Your task to perform on an android device: install app "Duolingo: language lessons" Image 0: 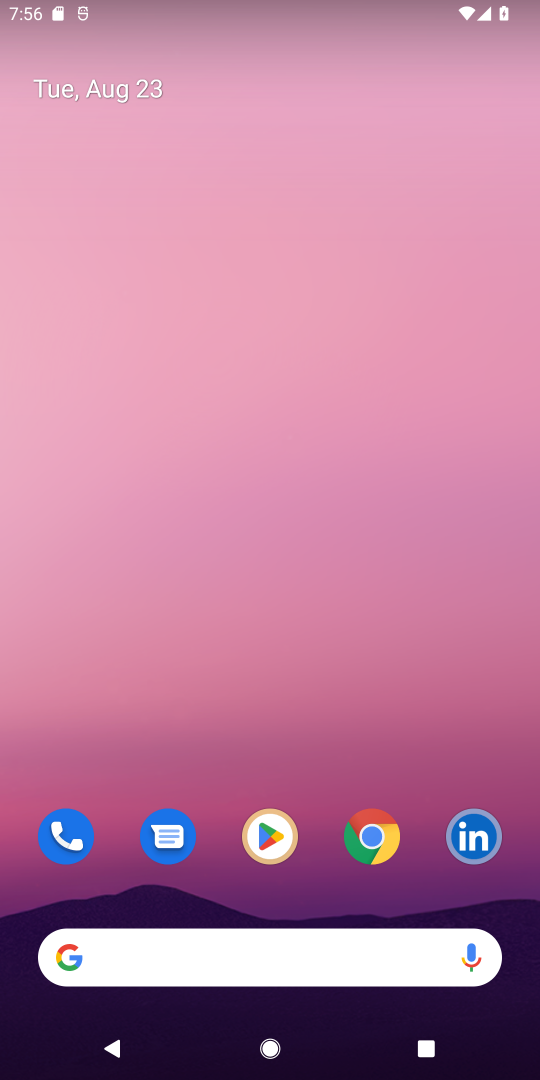
Step 0: click (277, 830)
Your task to perform on an android device: install app "Duolingo: language lessons" Image 1: 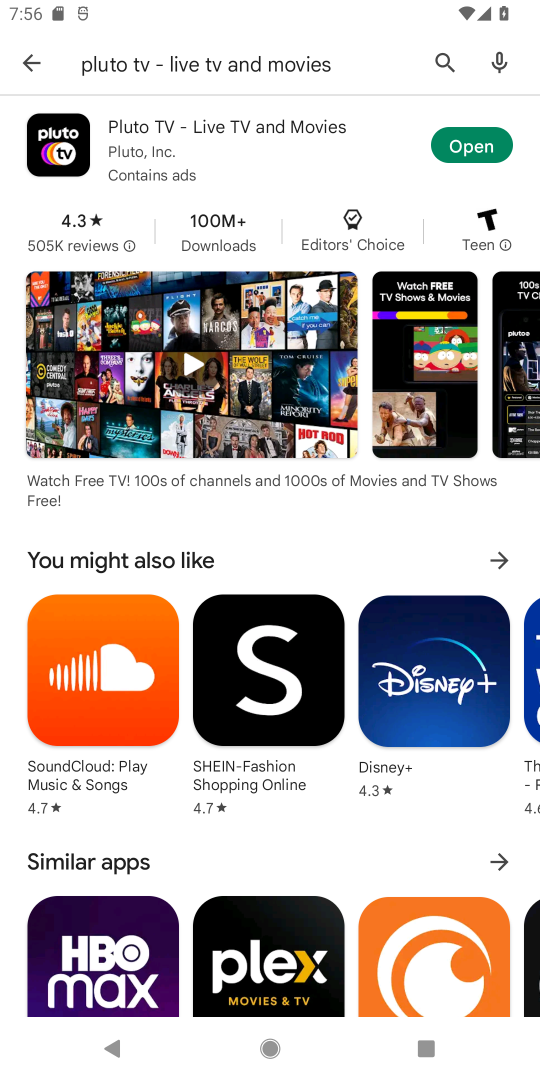
Step 1: click (441, 62)
Your task to perform on an android device: install app "Duolingo: language lessons" Image 2: 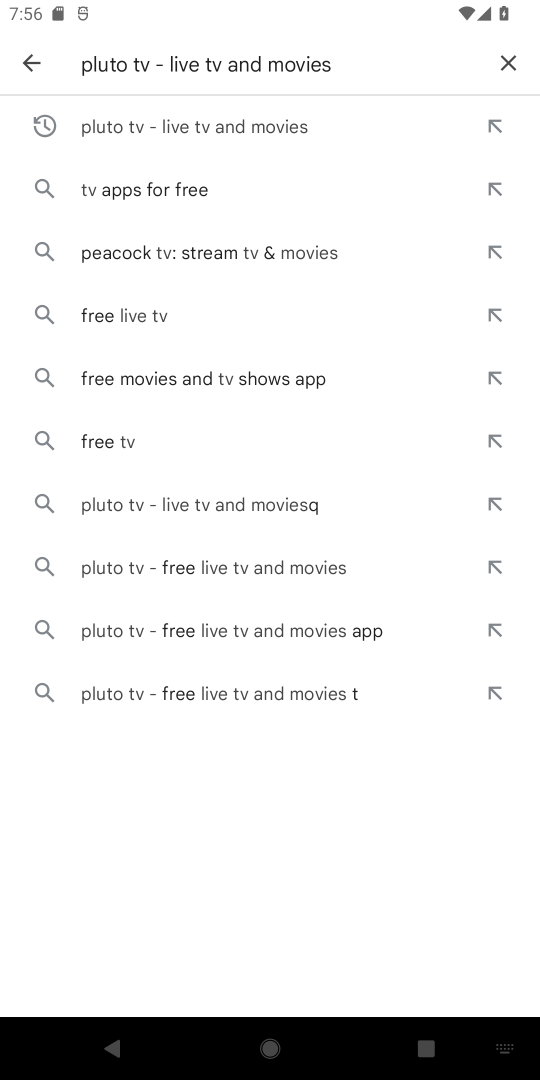
Step 2: click (511, 63)
Your task to perform on an android device: install app "Duolingo: language lessons" Image 3: 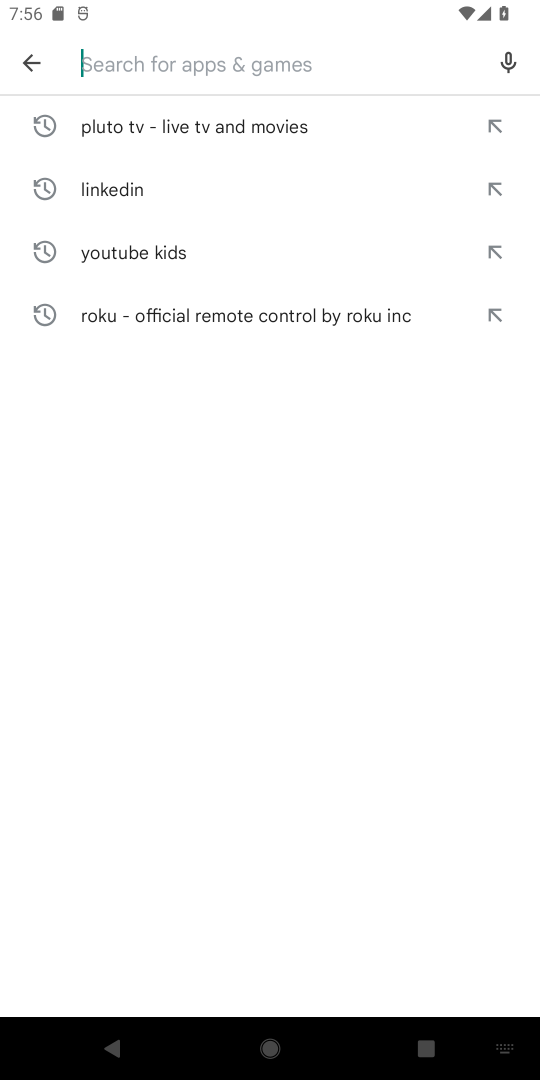
Step 3: type "Duolingo: language lessons"
Your task to perform on an android device: install app "Duolingo: language lessons" Image 4: 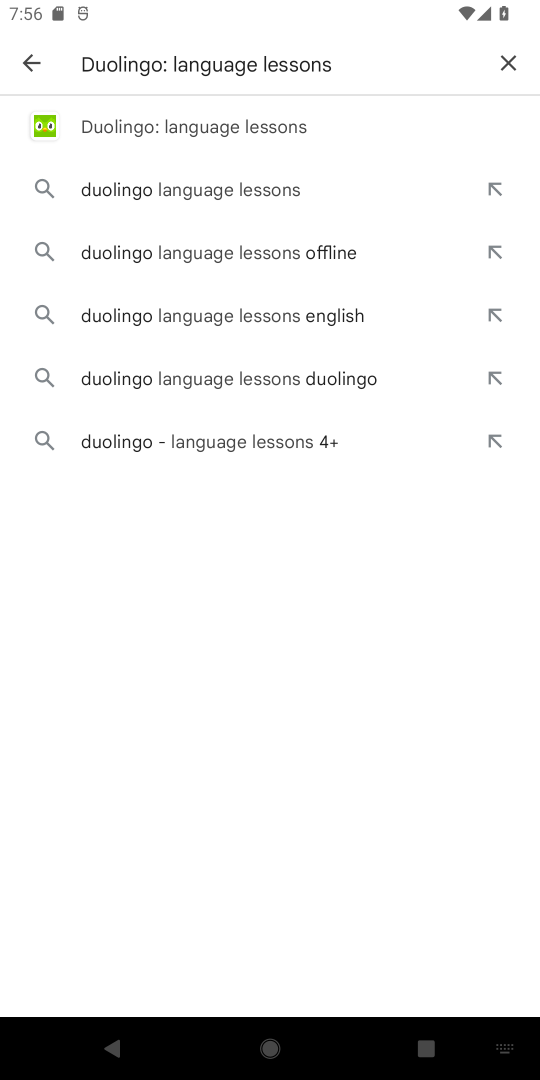
Step 4: click (171, 125)
Your task to perform on an android device: install app "Duolingo: language lessons" Image 5: 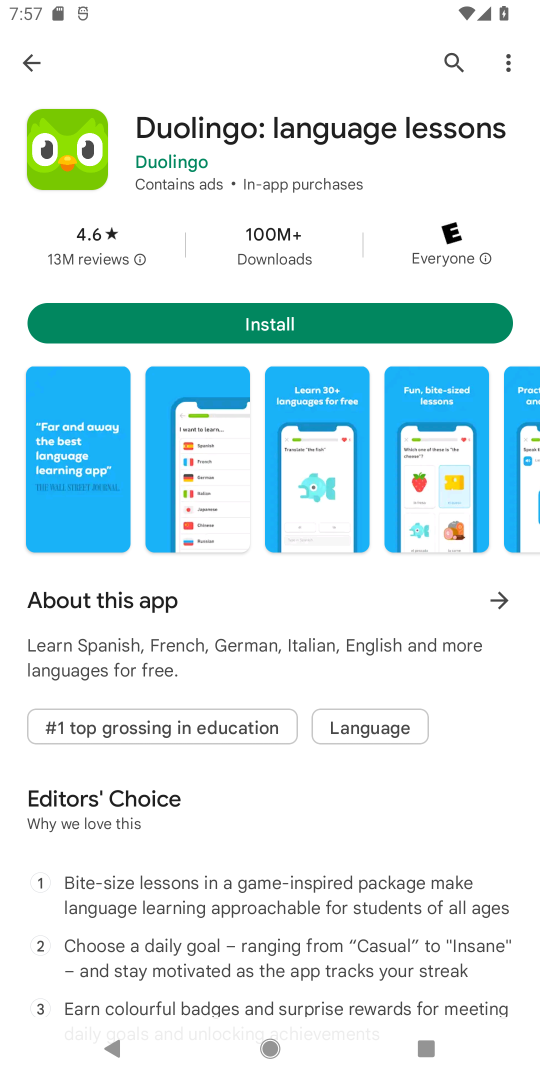
Step 5: click (244, 331)
Your task to perform on an android device: install app "Duolingo: language lessons" Image 6: 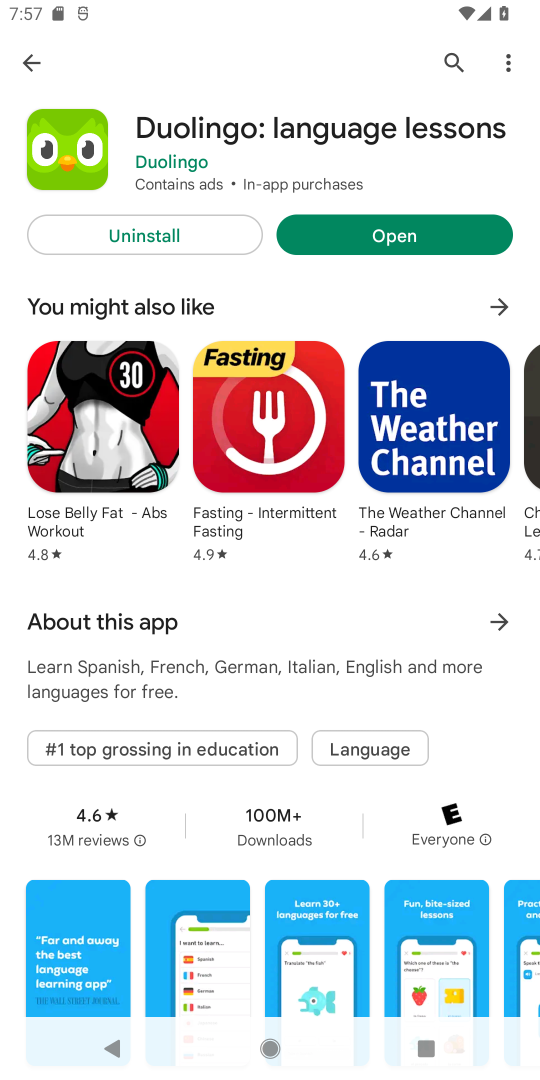
Step 6: task complete